Your task to perform on an android device: Open internet settings Image 0: 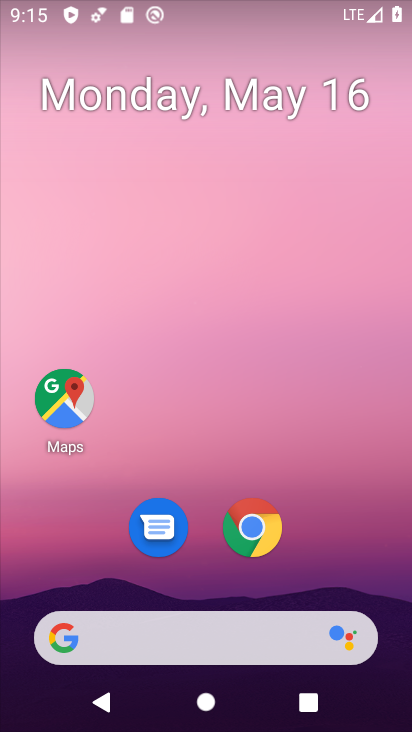
Step 0: drag from (364, 592) to (310, 25)
Your task to perform on an android device: Open internet settings Image 1: 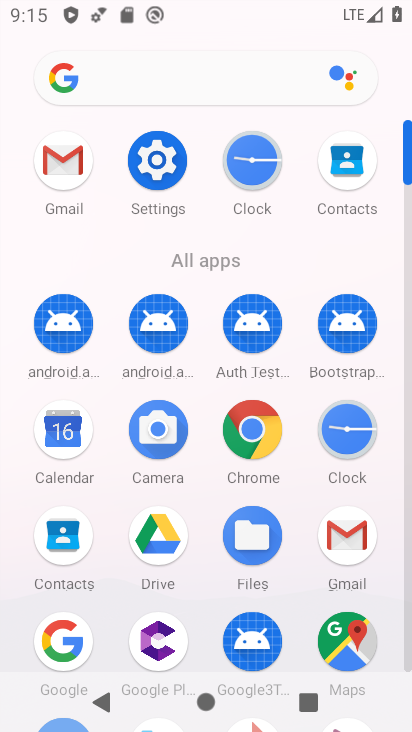
Step 1: click (154, 175)
Your task to perform on an android device: Open internet settings Image 2: 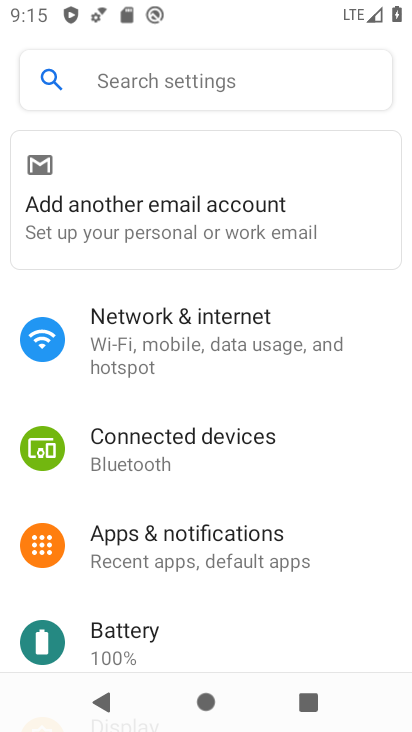
Step 2: click (153, 348)
Your task to perform on an android device: Open internet settings Image 3: 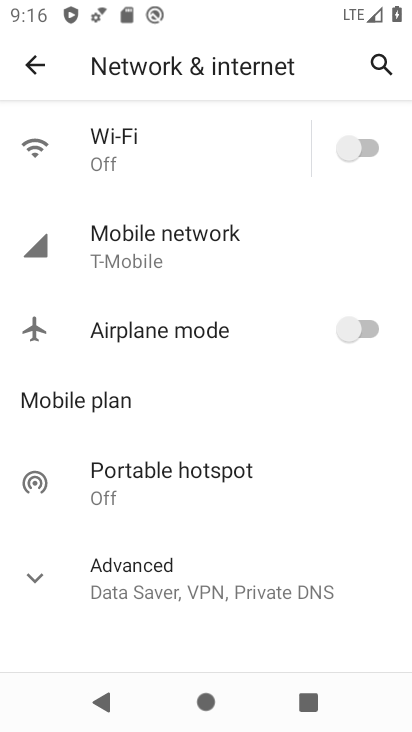
Step 3: task complete